Your task to perform on an android device: toggle wifi Image 0: 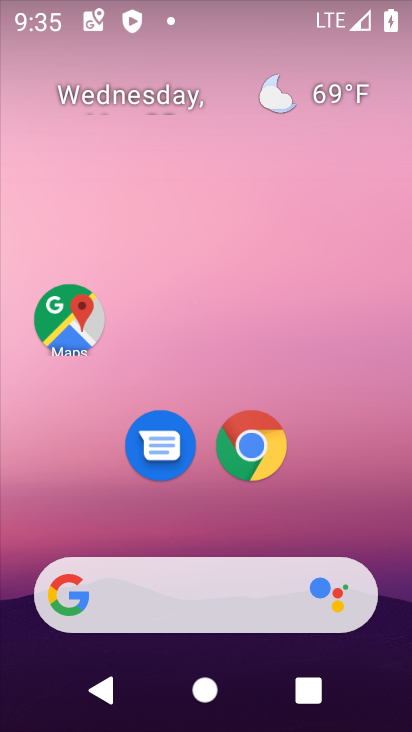
Step 0: drag from (266, 15) to (314, 500)
Your task to perform on an android device: toggle wifi Image 1: 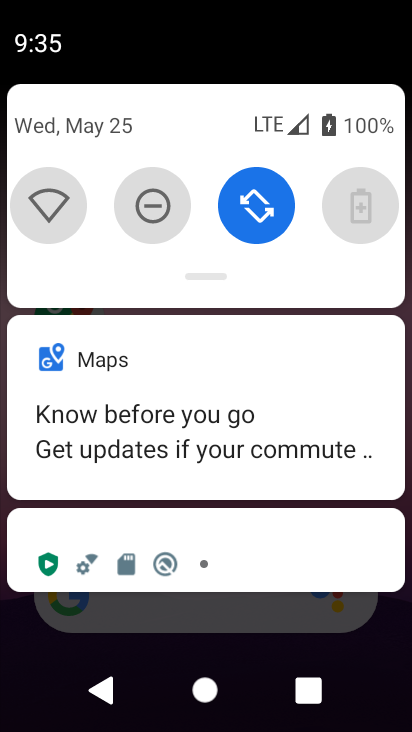
Step 1: click (42, 205)
Your task to perform on an android device: toggle wifi Image 2: 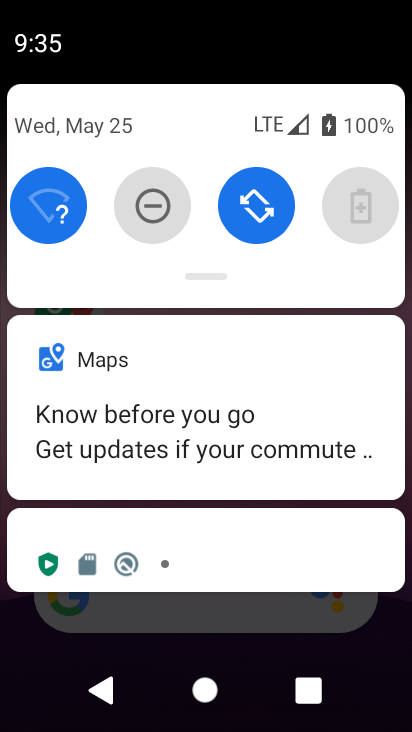
Step 2: task complete